Your task to perform on an android device: Go to CNN.com Image 0: 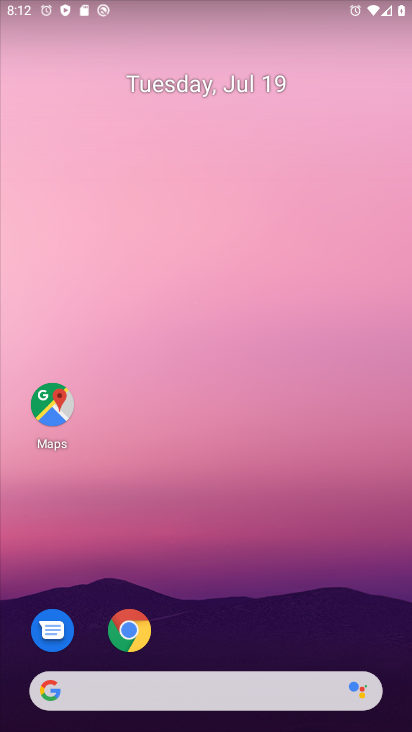
Step 0: click (244, 695)
Your task to perform on an android device: Go to CNN.com Image 1: 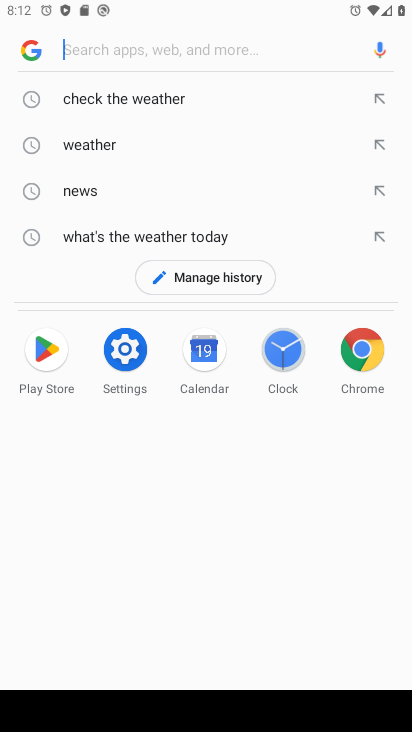
Step 1: type "CNN.com"
Your task to perform on an android device: Go to CNN.com Image 2: 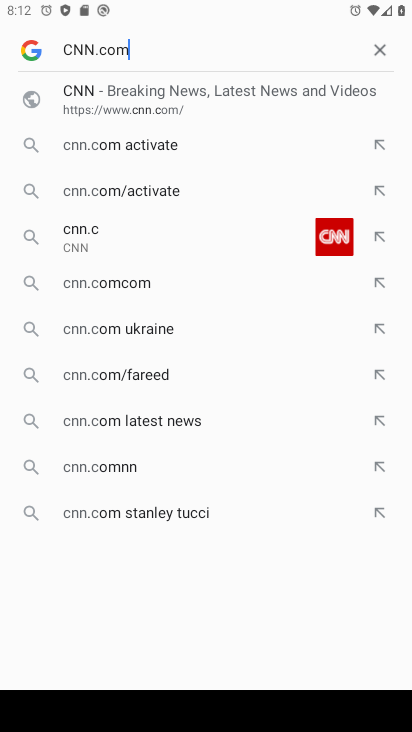
Step 2: press enter
Your task to perform on an android device: Go to CNN.com Image 3: 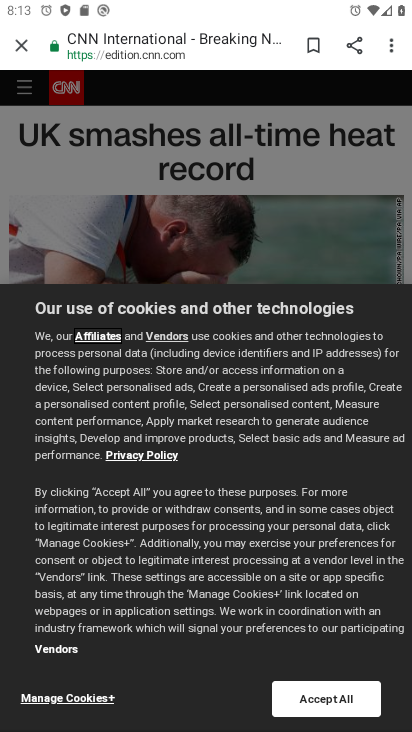
Step 3: task complete